Your task to perform on an android device: Open the calendar app, open the side menu, and click the "Day" option Image 0: 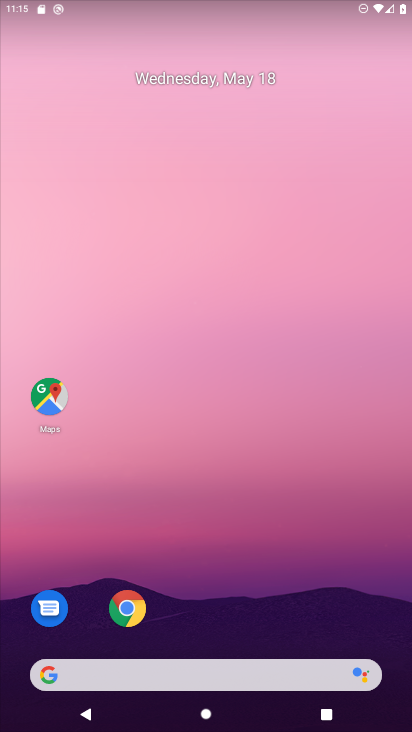
Step 0: drag from (235, 592) to (112, 60)
Your task to perform on an android device: Open the calendar app, open the side menu, and click the "Day" option Image 1: 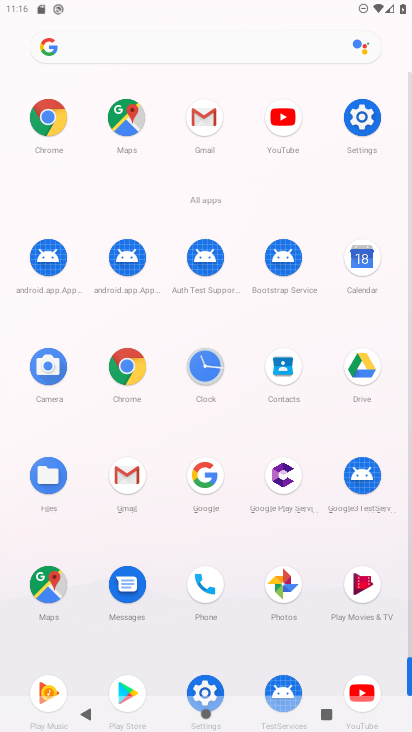
Step 1: click (361, 257)
Your task to perform on an android device: Open the calendar app, open the side menu, and click the "Day" option Image 2: 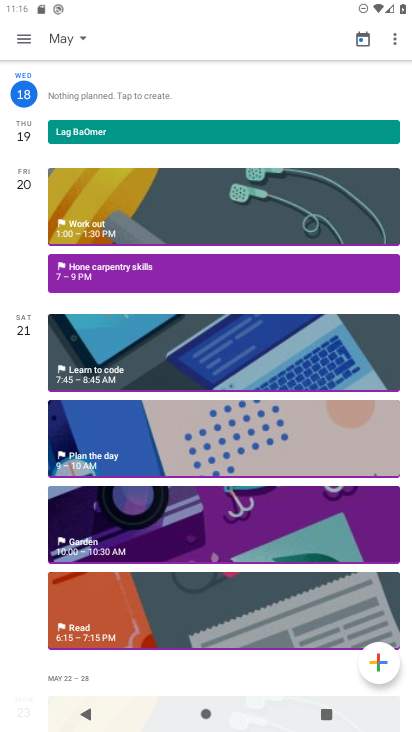
Step 2: click (26, 37)
Your task to perform on an android device: Open the calendar app, open the side menu, and click the "Day" option Image 3: 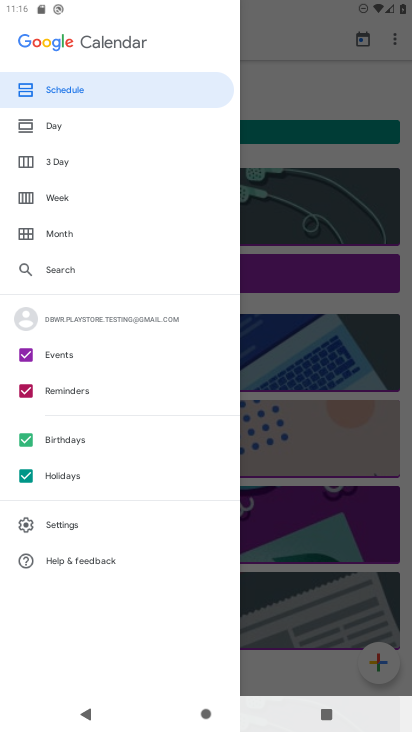
Step 3: click (44, 125)
Your task to perform on an android device: Open the calendar app, open the side menu, and click the "Day" option Image 4: 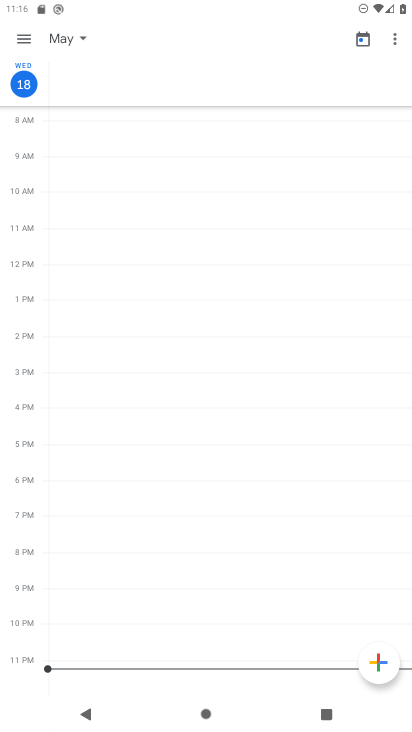
Step 4: task complete